Your task to perform on an android device: refresh tabs in the chrome app Image 0: 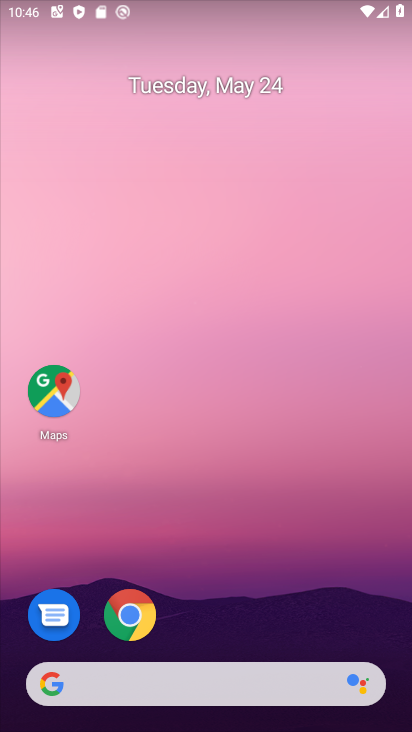
Step 0: click (132, 629)
Your task to perform on an android device: refresh tabs in the chrome app Image 1: 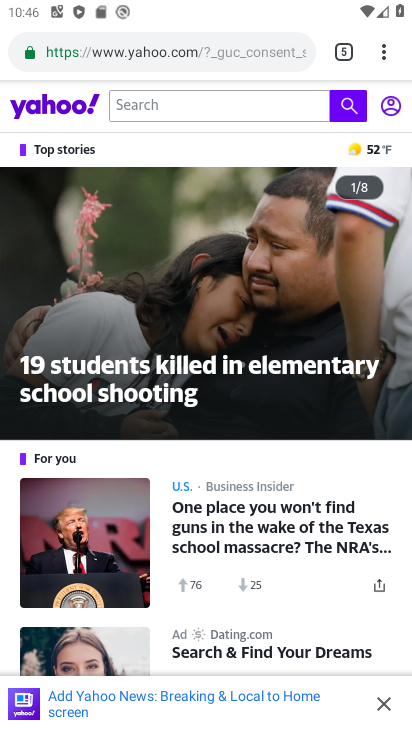
Step 1: click (385, 47)
Your task to perform on an android device: refresh tabs in the chrome app Image 2: 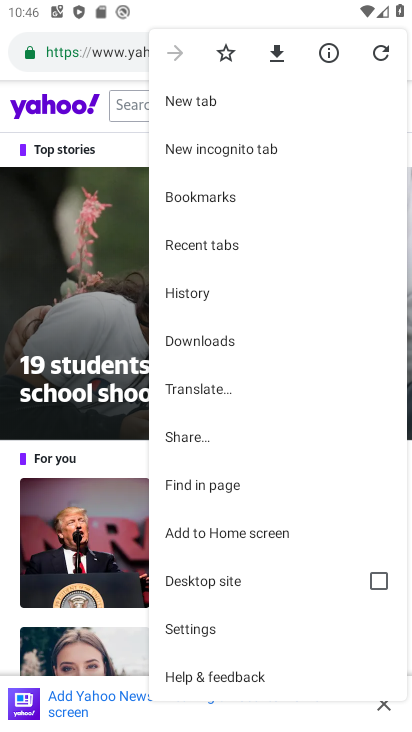
Step 2: click (380, 53)
Your task to perform on an android device: refresh tabs in the chrome app Image 3: 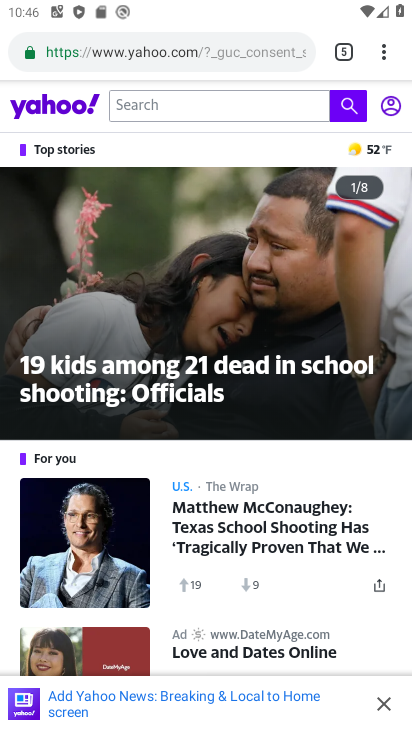
Step 3: task complete